Your task to perform on an android device: Open Google Chrome and click the shortcut for Amazon.com Image 0: 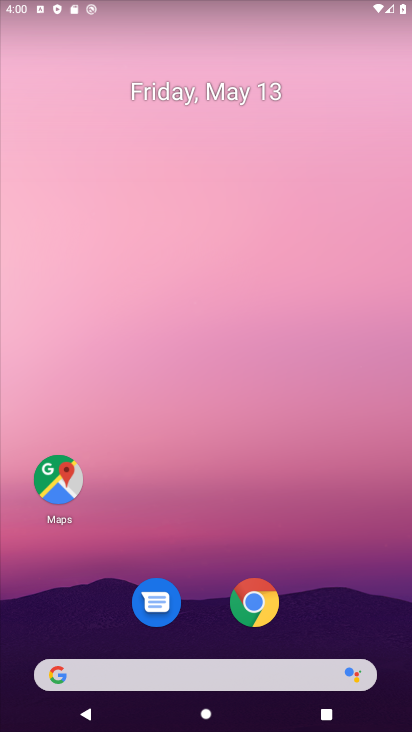
Step 0: click (255, 605)
Your task to perform on an android device: Open Google Chrome and click the shortcut for Amazon.com Image 1: 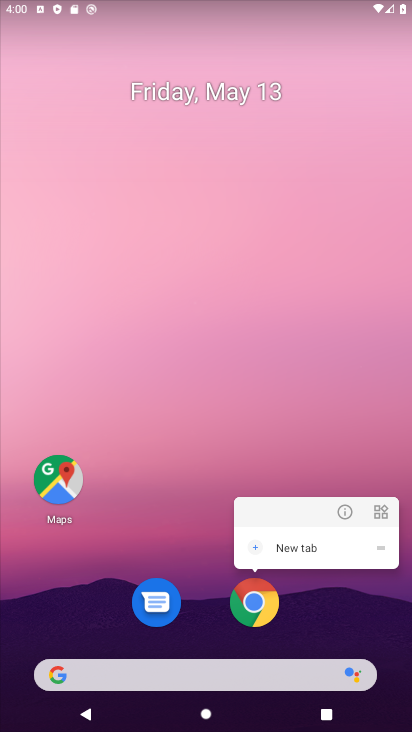
Step 1: click (255, 605)
Your task to perform on an android device: Open Google Chrome and click the shortcut for Amazon.com Image 2: 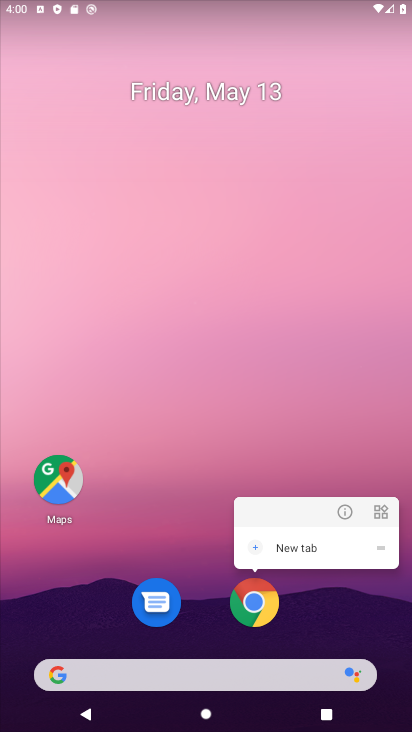
Step 2: click (255, 605)
Your task to perform on an android device: Open Google Chrome and click the shortcut for Amazon.com Image 3: 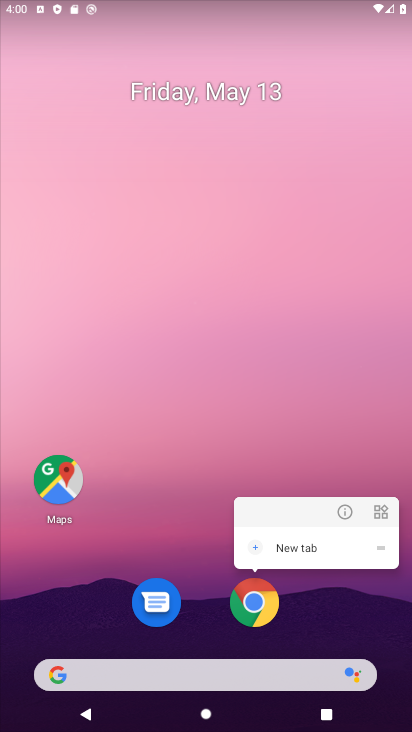
Step 3: click (253, 601)
Your task to perform on an android device: Open Google Chrome and click the shortcut for Amazon.com Image 4: 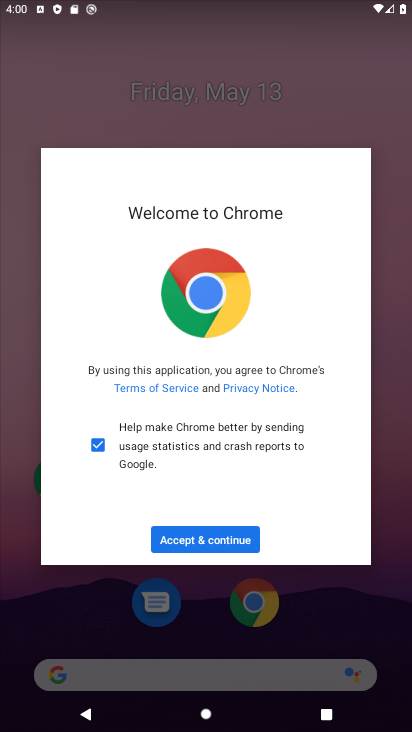
Step 4: click (197, 542)
Your task to perform on an android device: Open Google Chrome and click the shortcut for Amazon.com Image 5: 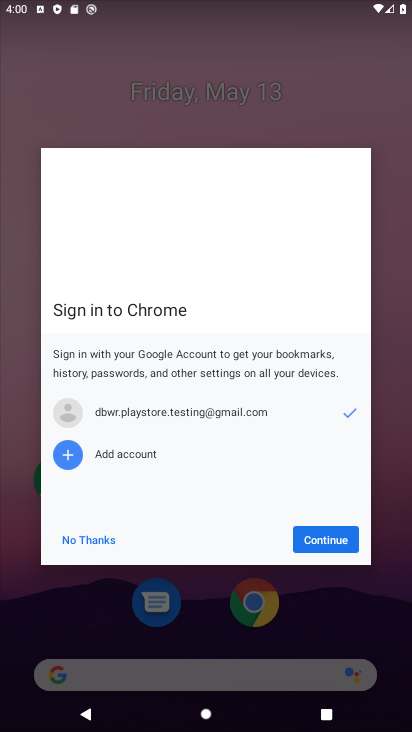
Step 5: click (314, 541)
Your task to perform on an android device: Open Google Chrome and click the shortcut for Amazon.com Image 6: 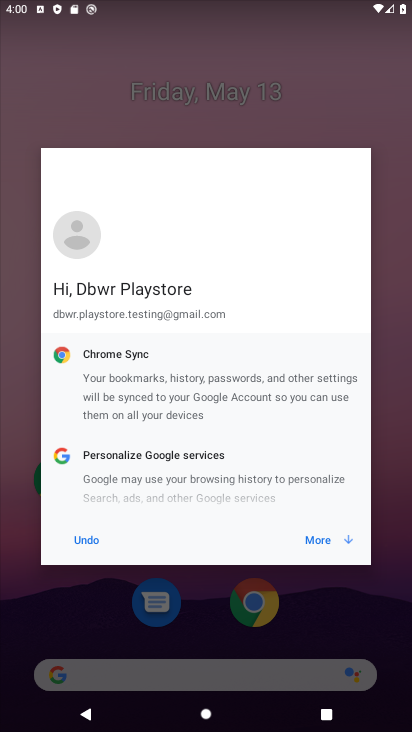
Step 6: click (309, 539)
Your task to perform on an android device: Open Google Chrome and click the shortcut for Amazon.com Image 7: 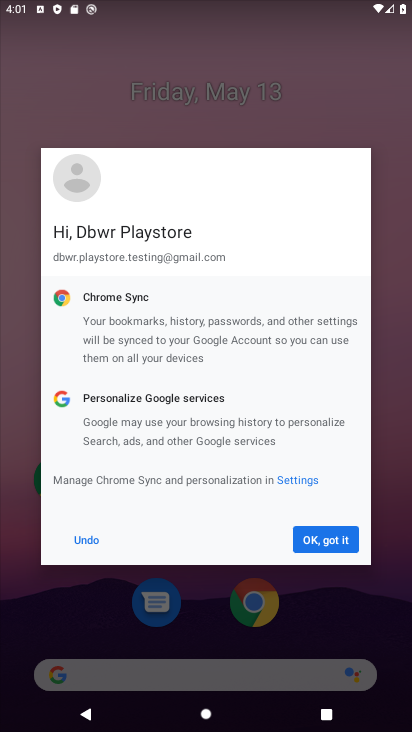
Step 7: click (309, 539)
Your task to perform on an android device: Open Google Chrome and click the shortcut for Amazon.com Image 8: 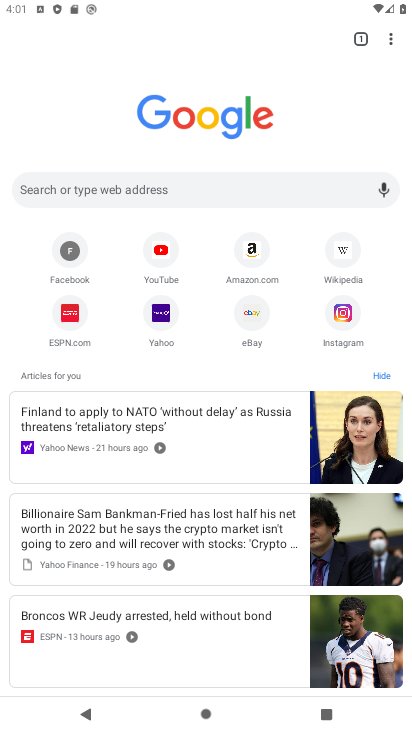
Step 8: click (251, 241)
Your task to perform on an android device: Open Google Chrome and click the shortcut for Amazon.com Image 9: 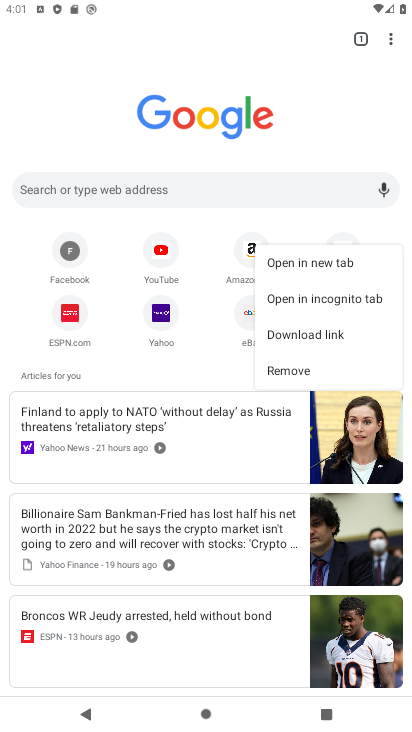
Step 9: click (249, 246)
Your task to perform on an android device: Open Google Chrome and click the shortcut for Amazon.com Image 10: 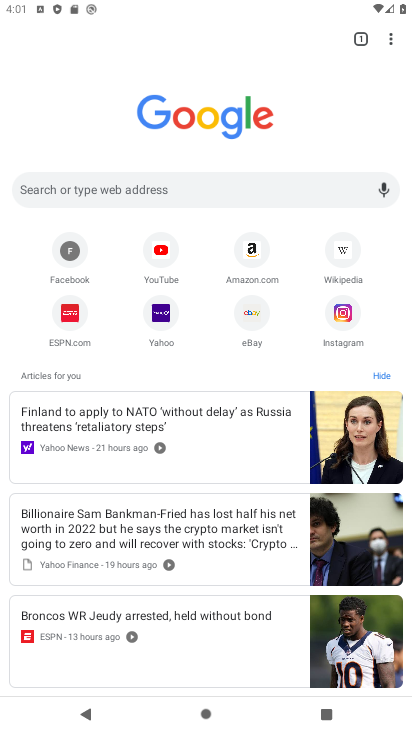
Step 10: click (256, 253)
Your task to perform on an android device: Open Google Chrome and click the shortcut for Amazon.com Image 11: 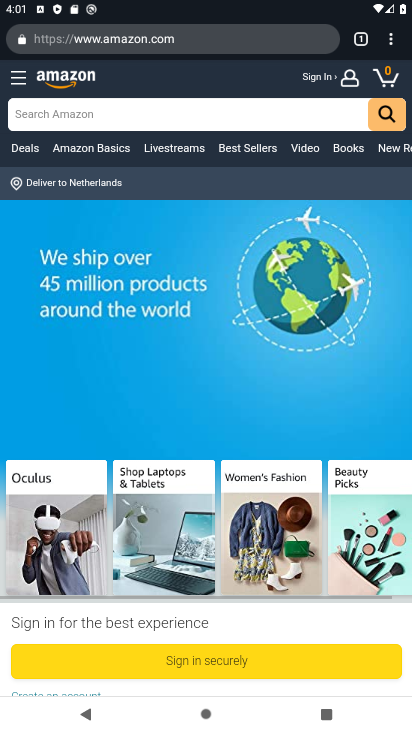
Step 11: task complete